Your task to perform on an android device: See recent photos Image 0: 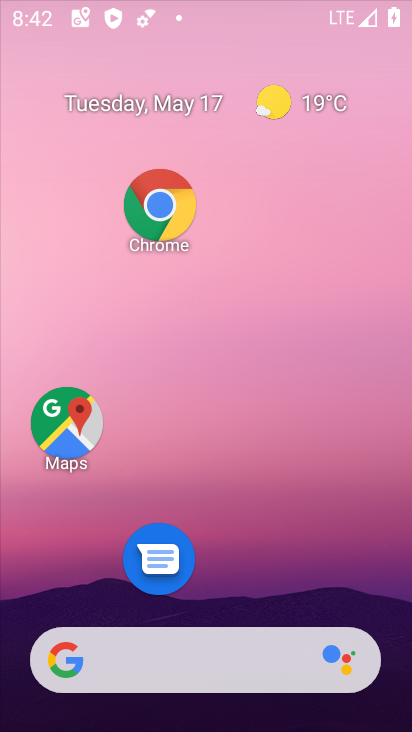
Step 0: drag from (210, 604) to (217, 71)
Your task to perform on an android device: See recent photos Image 1: 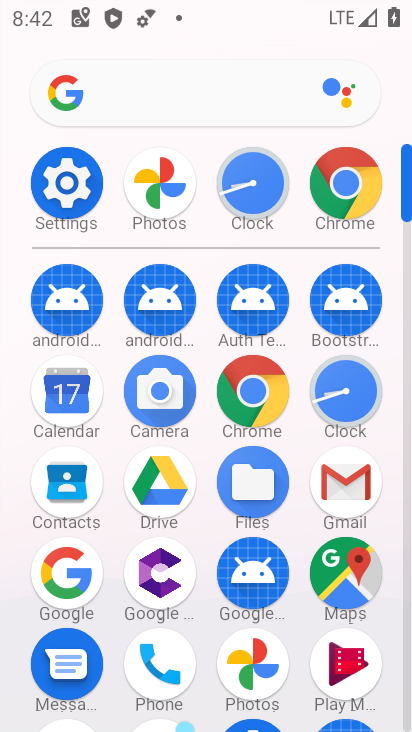
Step 1: click (254, 644)
Your task to perform on an android device: See recent photos Image 2: 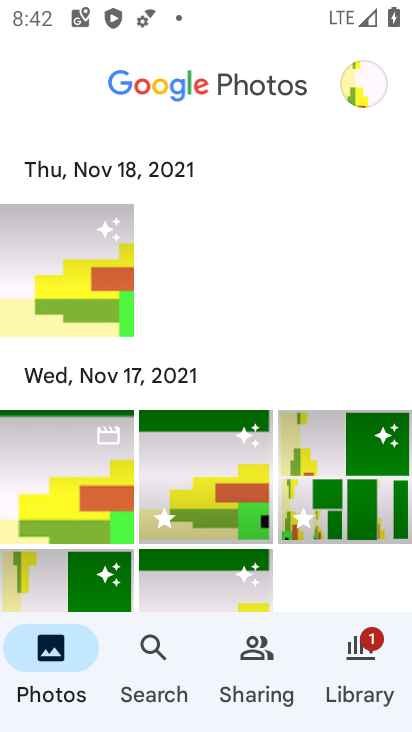
Step 2: click (77, 508)
Your task to perform on an android device: See recent photos Image 3: 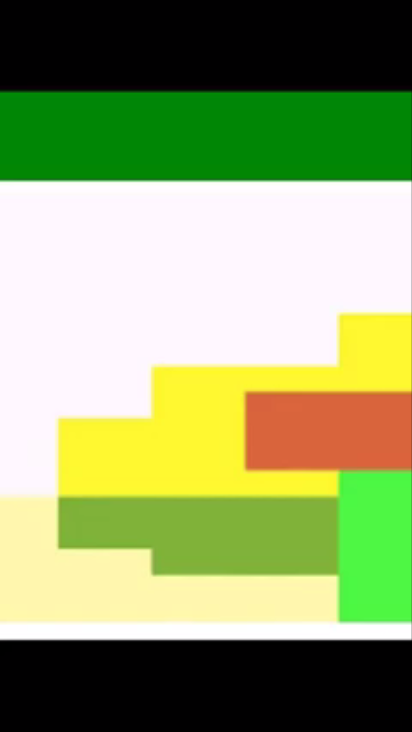
Step 3: task complete